Your task to perform on an android device: open chrome and create a bookmark for the current page Image 0: 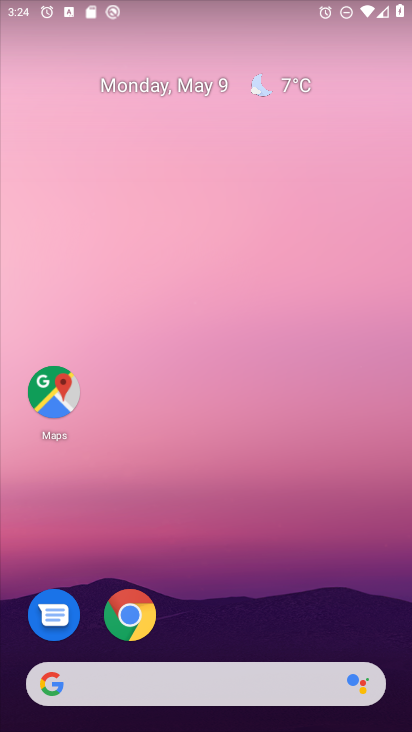
Step 0: click (131, 612)
Your task to perform on an android device: open chrome and create a bookmark for the current page Image 1: 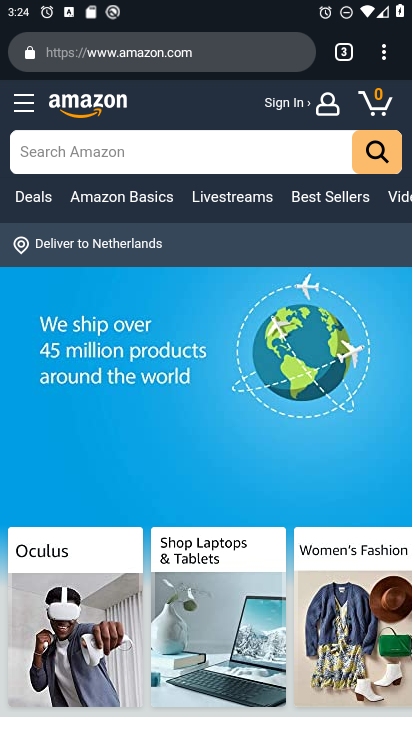
Step 1: click (390, 57)
Your task to perform on an android device: open chrome and create a bookmark for the current page Image 2: 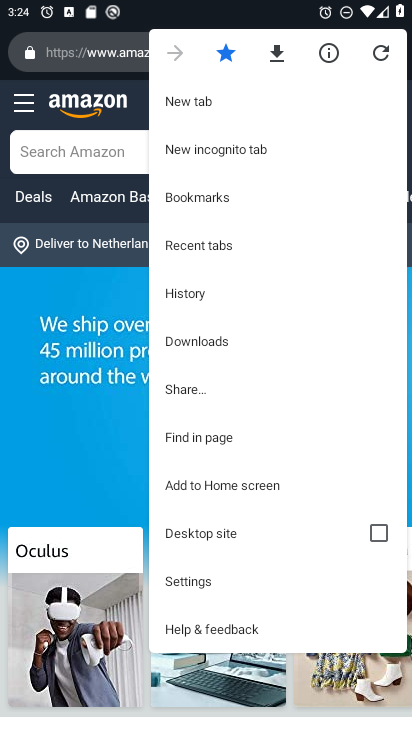
Step 2: task complete